Your task to perform on an android device: turn off improve location accuracy Image 0: 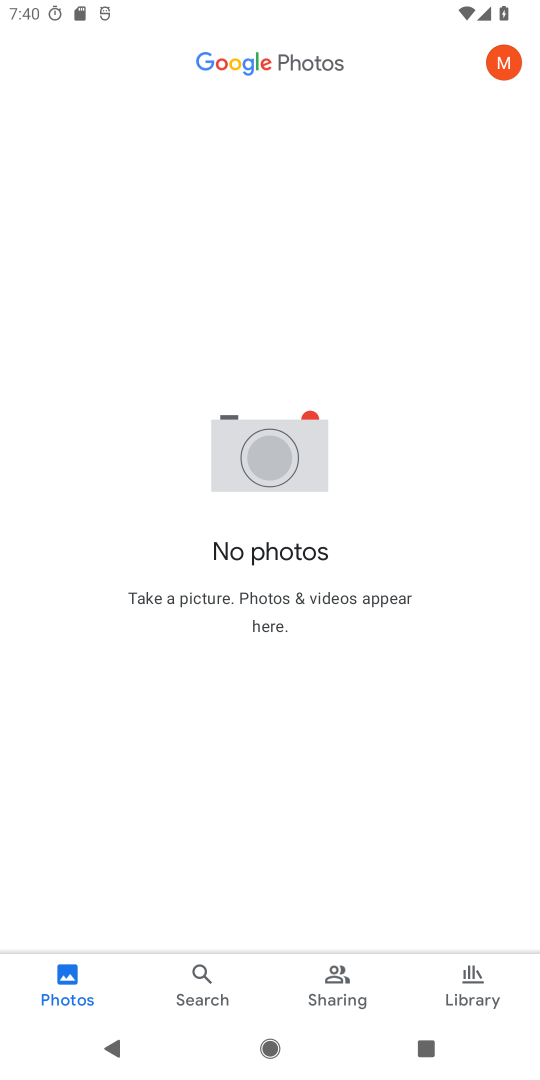
Step 0: press back button
Your task to perform on an android device: turn off improve location accuracy Image 1: 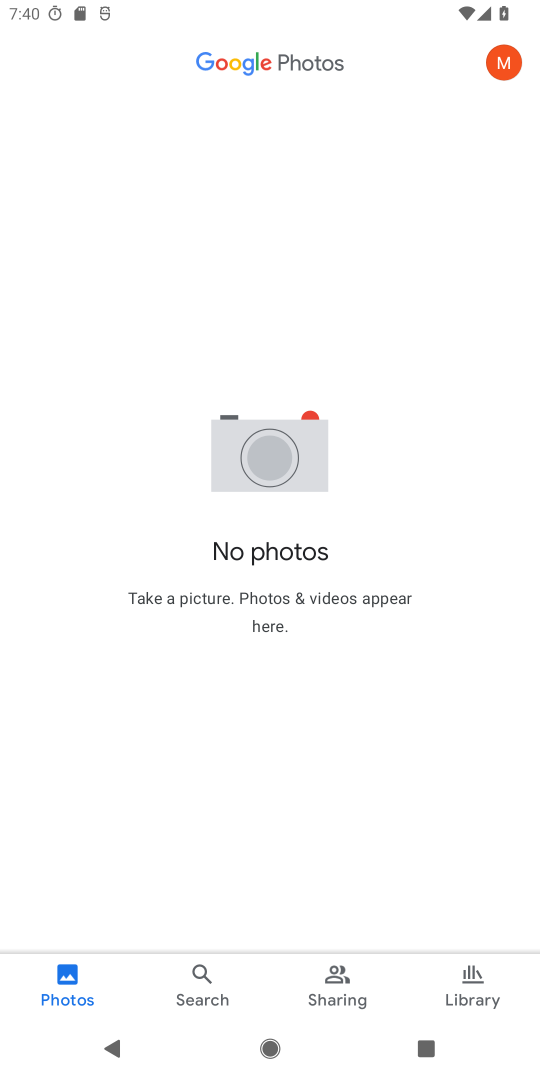
Step 1: press back button
Your task to perform on an android device: turn off improve location accuracy Image 2: 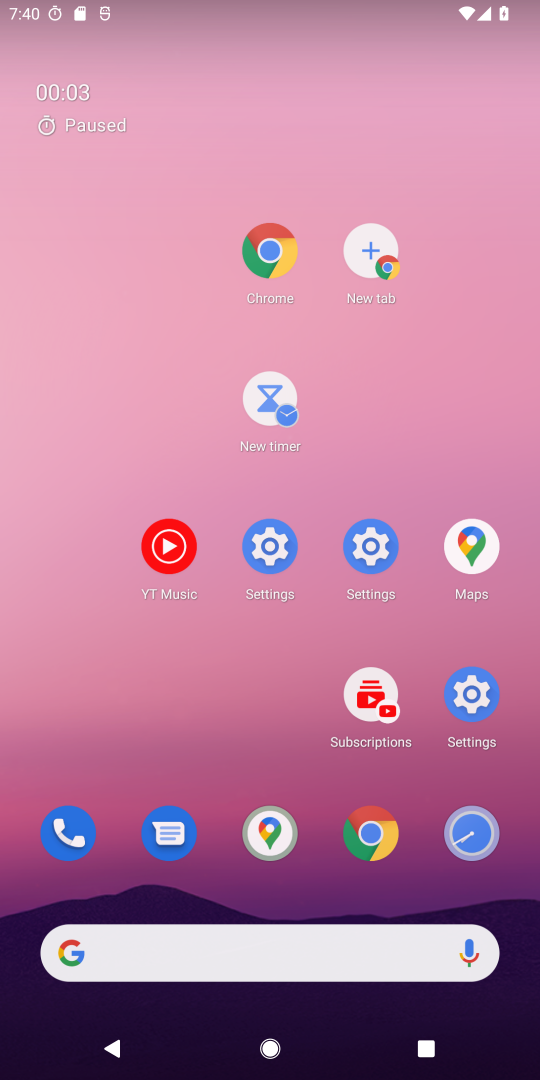
Step 2: press back button
Your task to perform on an android device: turn off improve location accuracy Image 3: 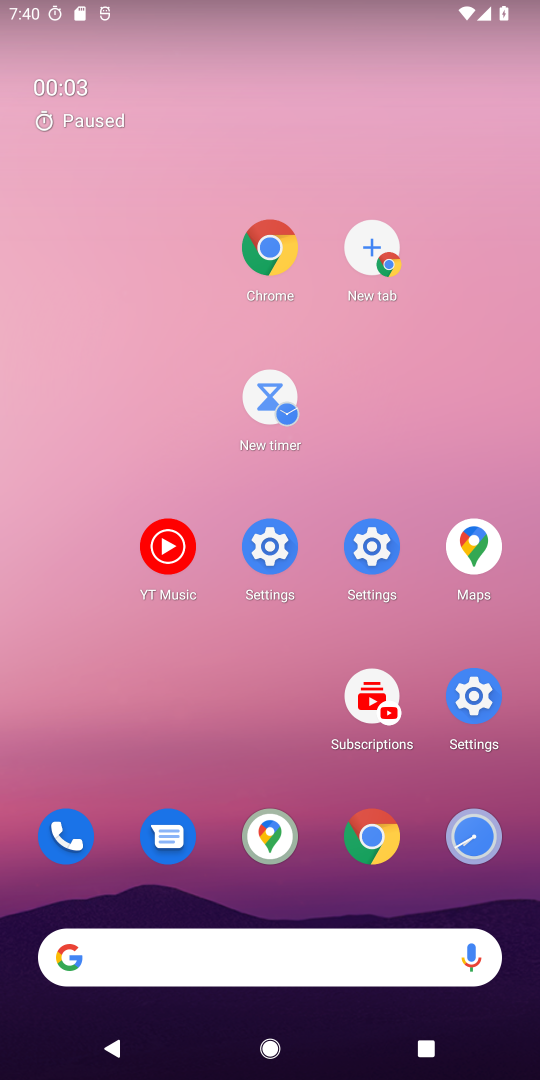
Step 3: drag from (374, 1008) to (189, 149)
Your task to perform on an android device: turn off improve location accuracy Image 4: 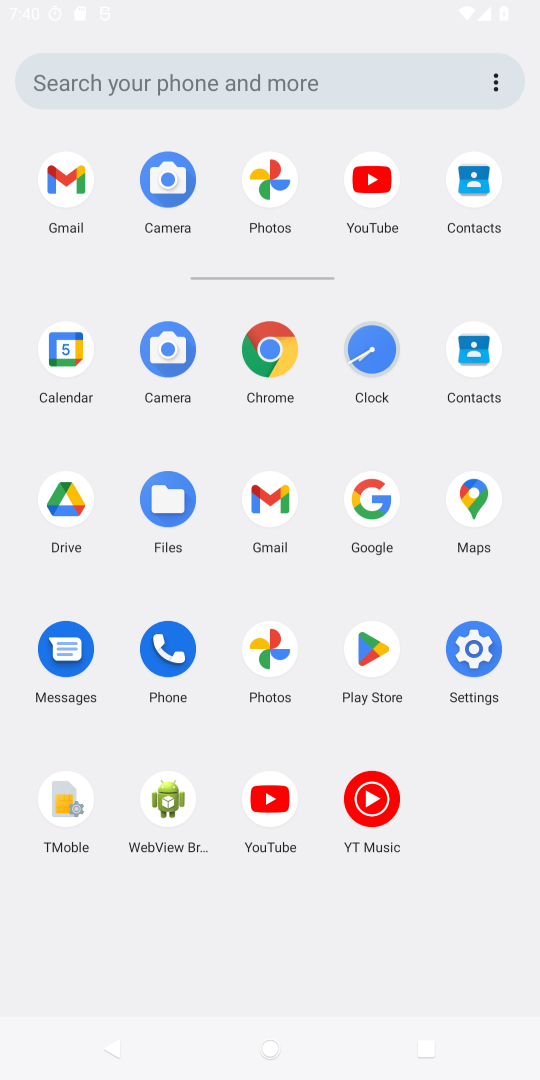
Step 4: drag from (303, 767) to (192, 284)
Your task to perform on an android device: turn off improve location accuracy Image 5: 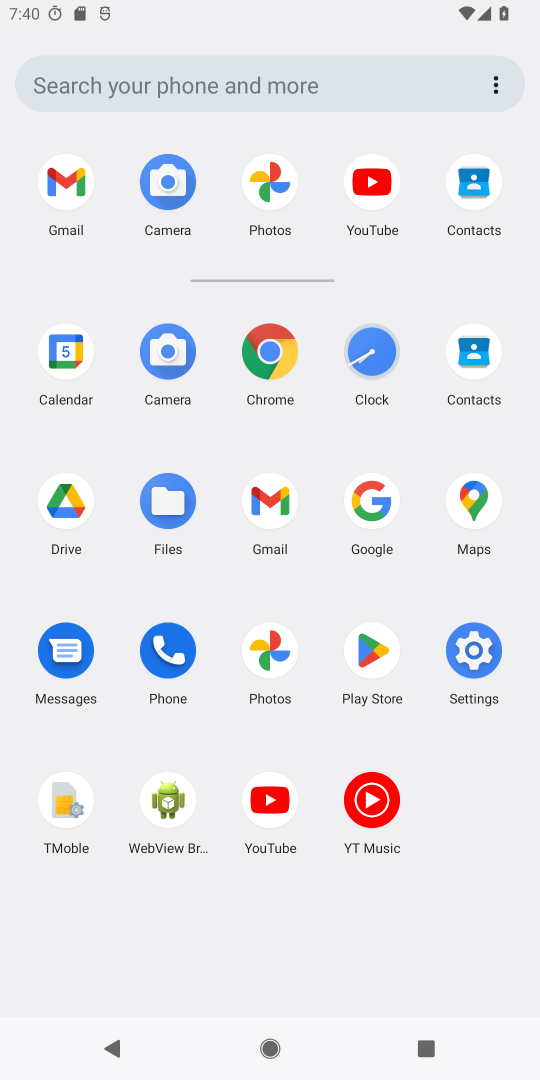
Step 5: click (466, 631)
Your task to perform on an android device: turn off improve location accuracy Image 6: 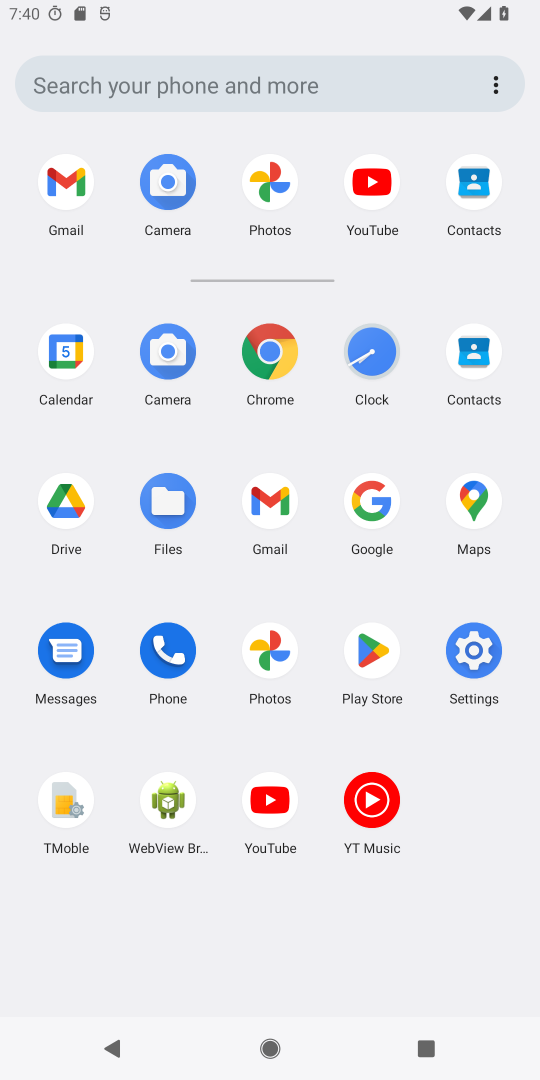
Step 6: click (466, 631)
Your task to perform on an android device: turn off improve location accuracy Image 7: 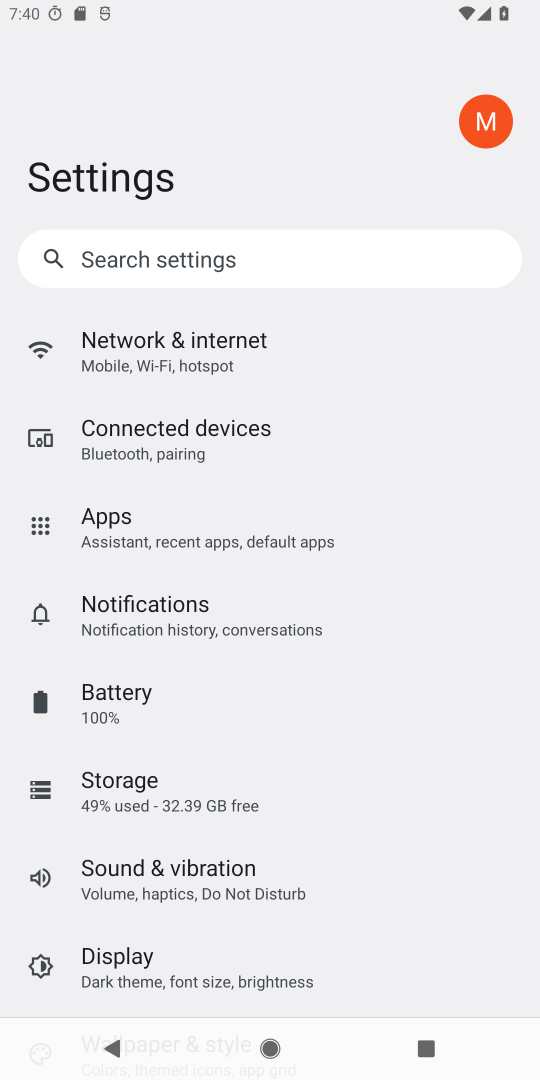
Step 7: drag from (190, 586) to (212, 284)
Your task to perform on an android device: turn off improve location accuracy Image 8: 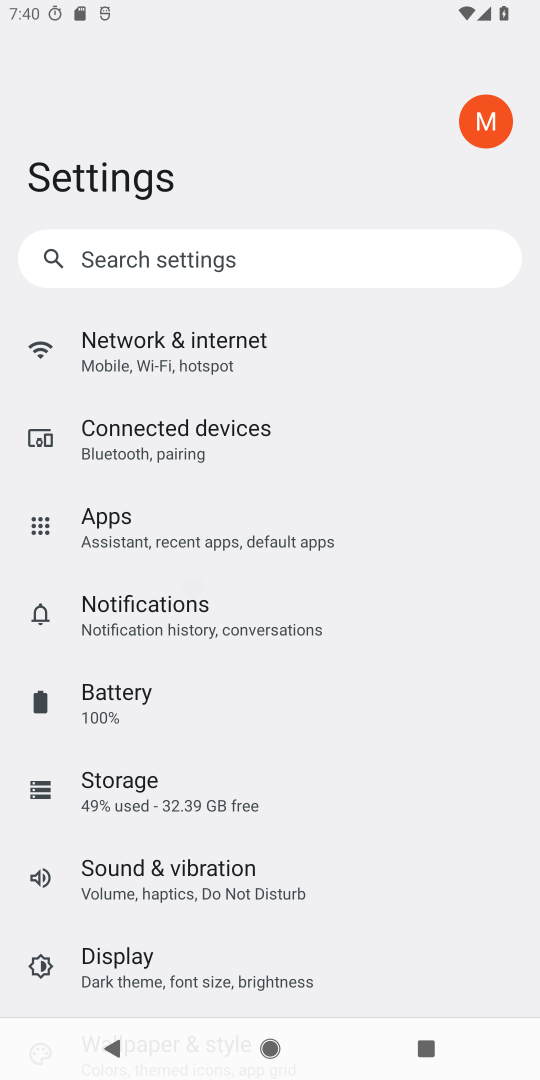
Step 8: drag from (259, 783) to (187, 400)
Your task to perform on an android device: turn off improve location accuracy Image 9: 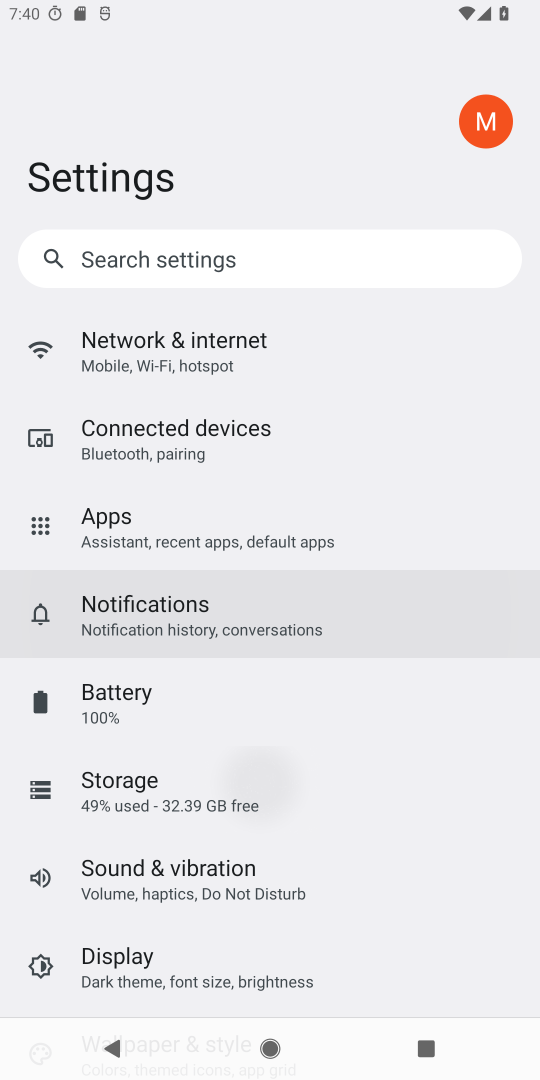
Step 9: drag from (150, 728) to (120, 402)
Your task to perform on an android device: turn off improve location accuracy Image 10: 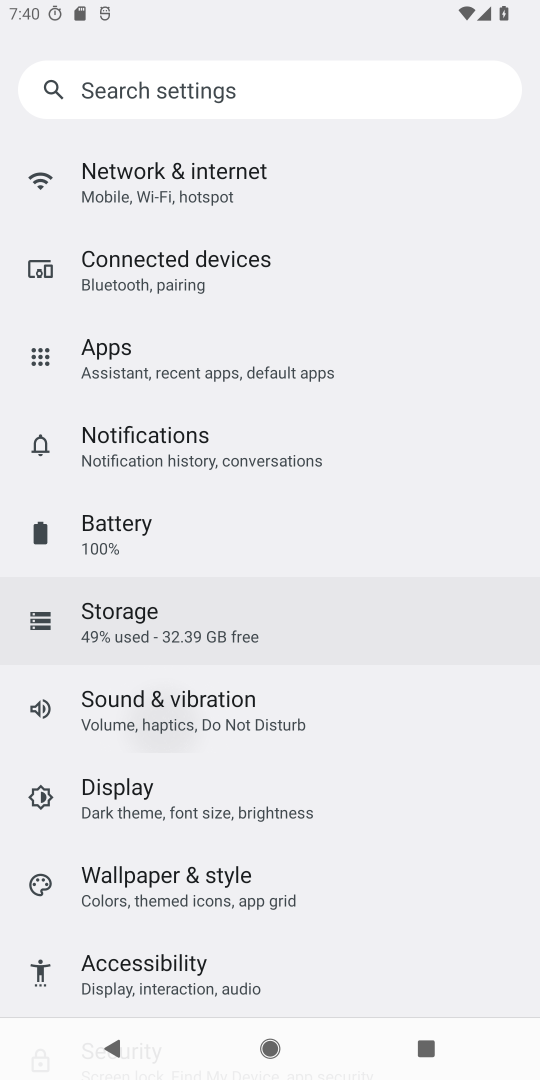
Step 10: drag from (190, 803) to (158, 524)
Your task to perform on an android device: turn off improve location accuracy Image 11: 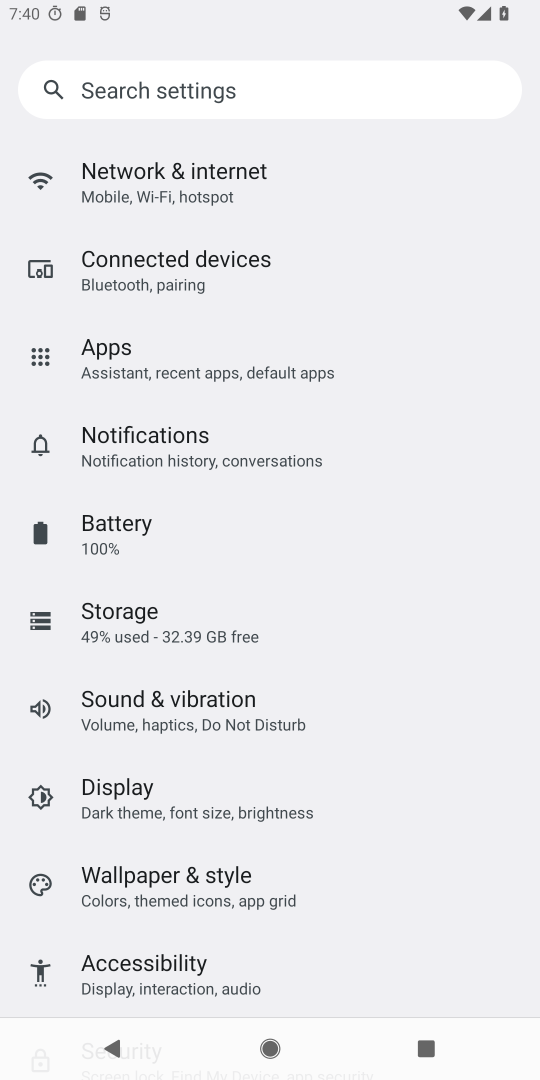
Step 11: drag from (164, 708) to (98, 421)
Your task to perform on an android device: turn off improve location accuracy Image 12: 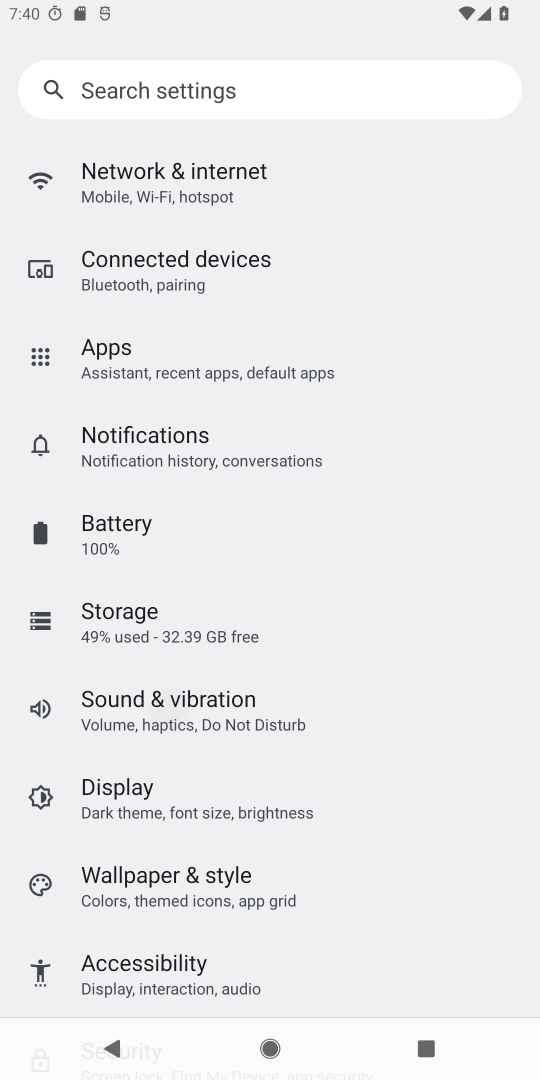
Step 12: drag from (142, 705) to (113, 511)
Your task to perform on an android device: turn off improve location accuracy Image 13: 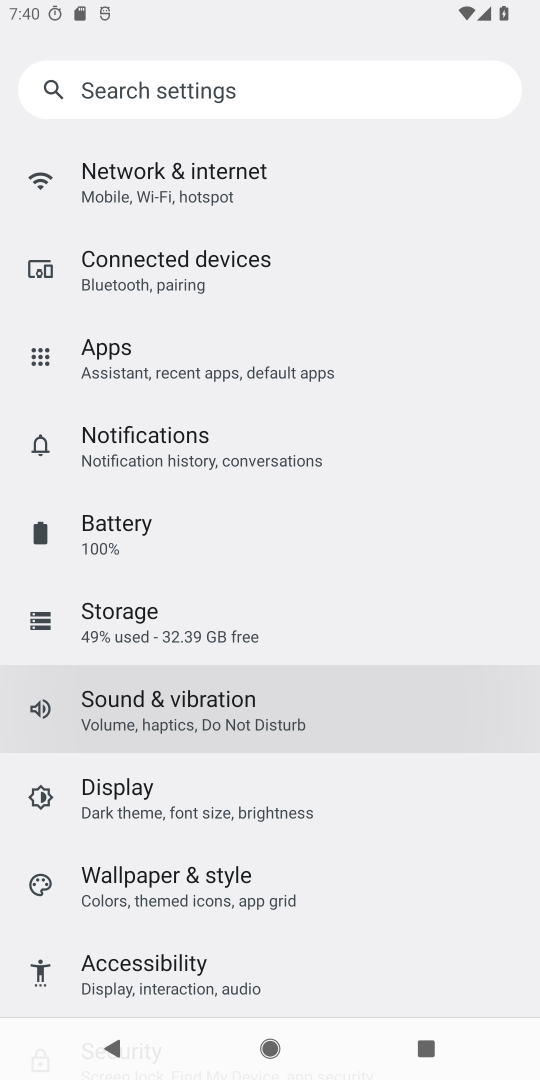
Step 13: drag from (177, 786) to (134, 491)
Your task to perform on an android device: turn off improve location accuracy Image 14: 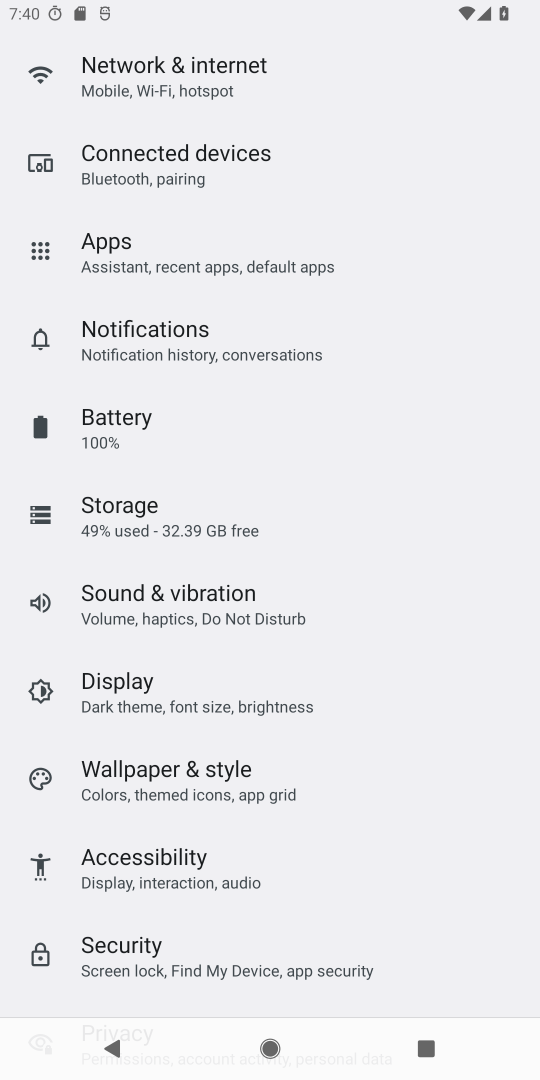
Step 14: drag from (121, 290) to (132, 641)
Your task to perform on an android device: turn off improve location accuracy Image 15: 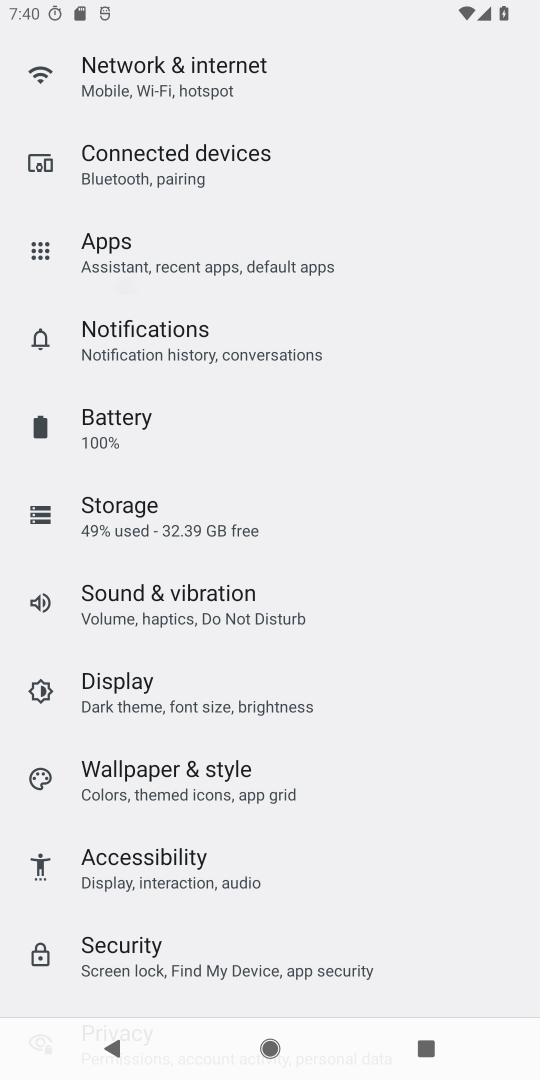
Step 15: drag from (111, 369) to (149, 642)
Your task to perform on an android device: turn off improve location accuracy Image 16: 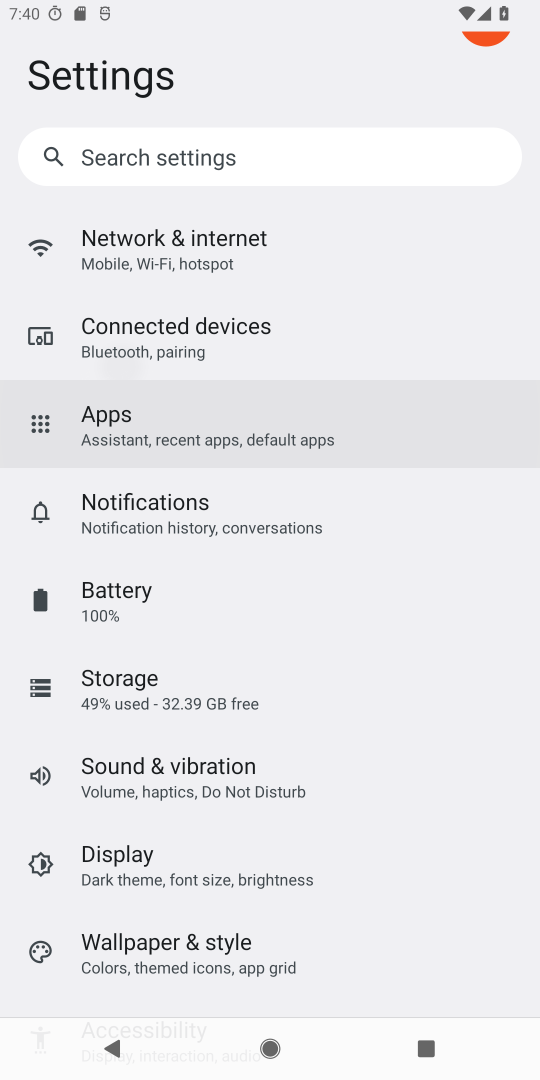
Step 16: drag from (152, 411) to (206, 732)
Your task to perform on an android device: turn off improve location accuracy Image 17: 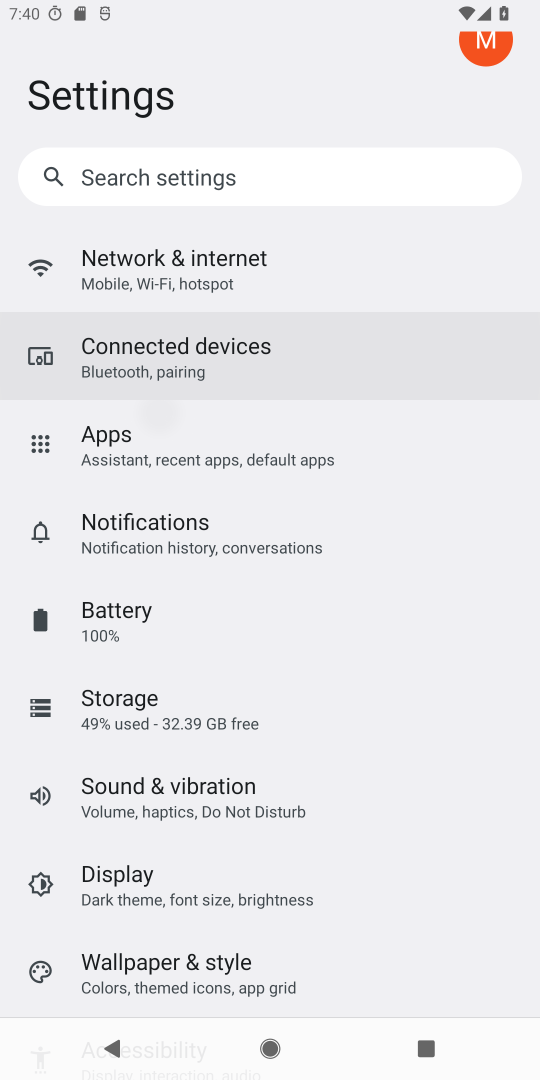
Step 17: drag from (221, 415) to (251, 633)
Your task to perform on an android device: turn off improve location accuracy Image 18: 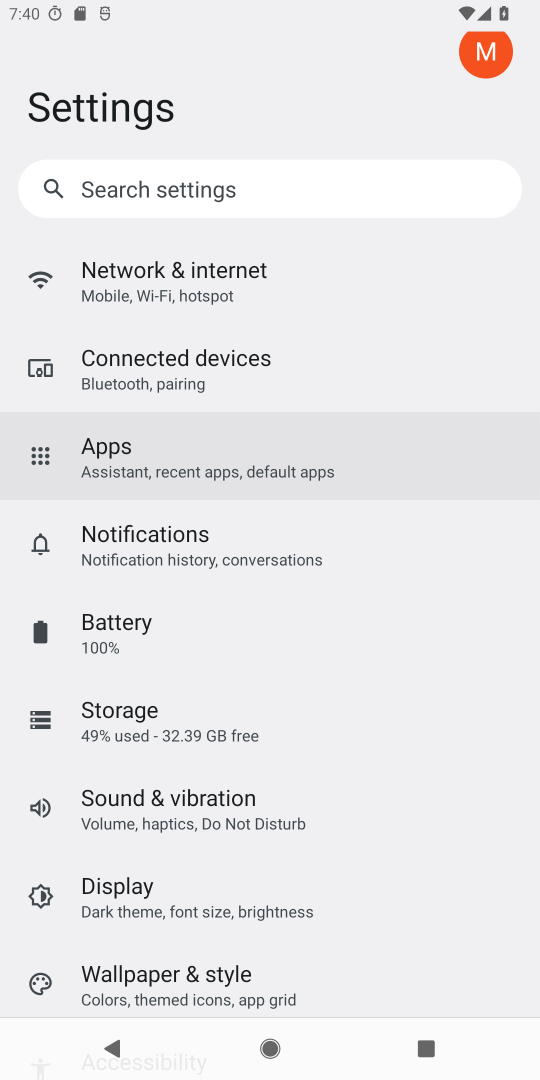
Step 18: drag from (194, 326) to (223, 588)
Your task to perform on an android device: turn off improve location accuracy Image 19: 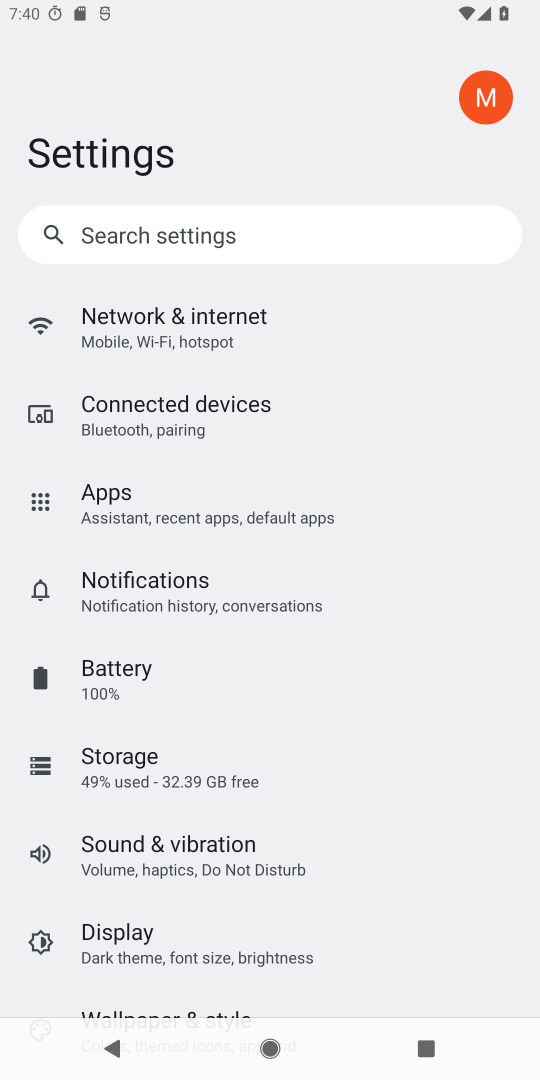
Step 19: drag from (248, 746) to (257, 589)
Your task to perform on an android device: turn off improve location accuracy Image 20: 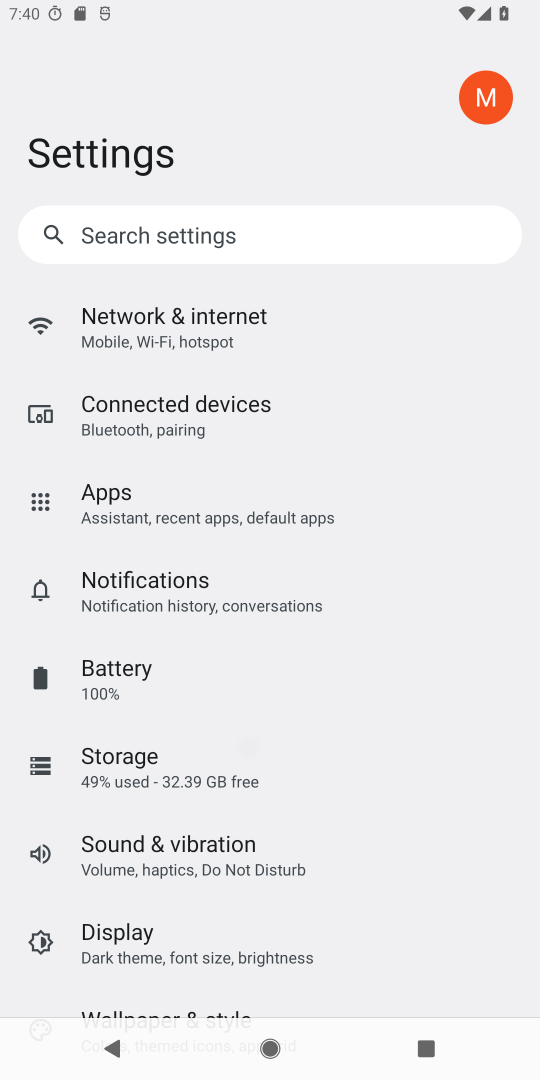
Step 20: drag from (250, 745) to (211, 460)
Your task to perform on an android device: turn off improve location accuracy Image 21: 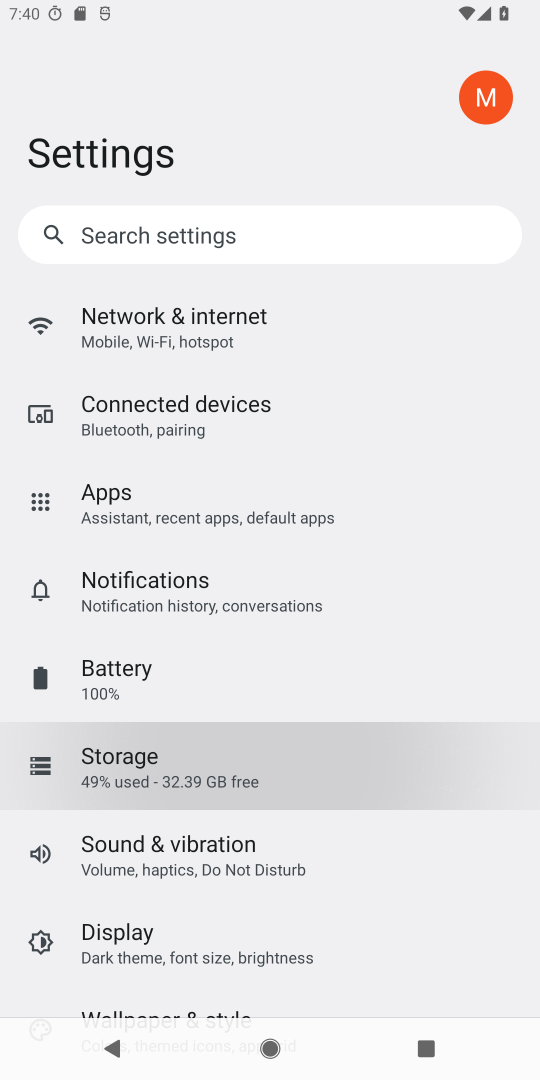
Step 21: drag from (209, 575) to (233, 494)
Your task to perform on an android device: turn off improve location accuracy Image 22: 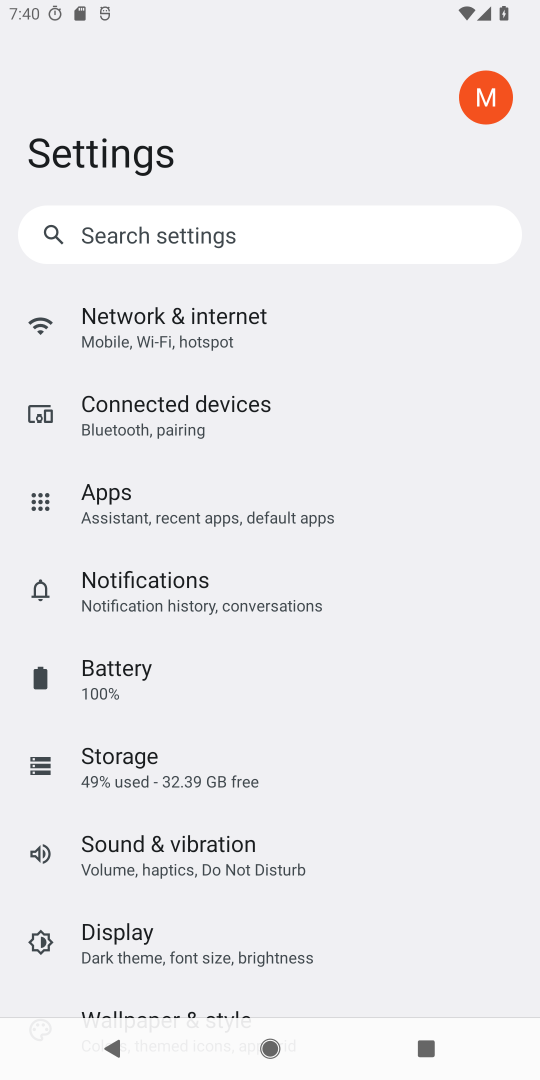
Step 22: drag from (105, 452) to (93, 379)
Your task to perform on an android device: turn off improve location accuracy Image 23: 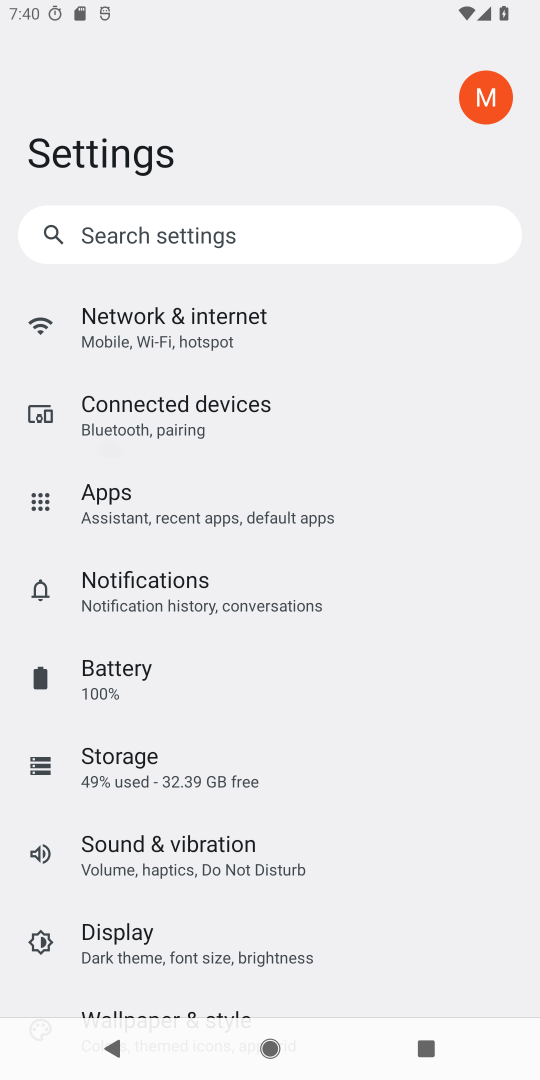
Step 23: drag from (194, 700) to (210, 465)
Your task to perform on an android device: turn off improve location accuracy Image 24: 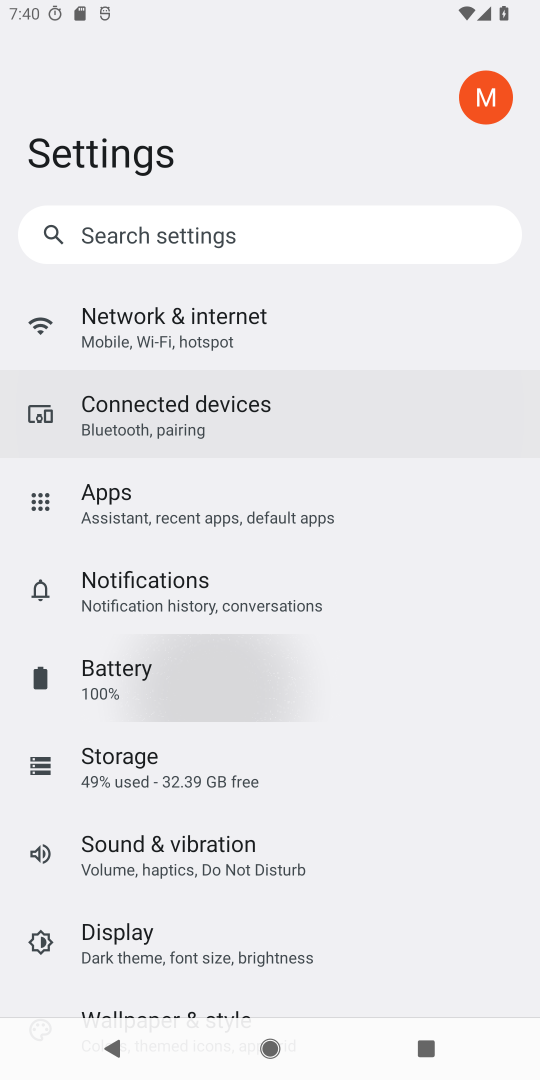
Step 24: drag from (271, 731) to (237, 509)
Your task to perform on an android device: turn off improve location accuracy Image 25: 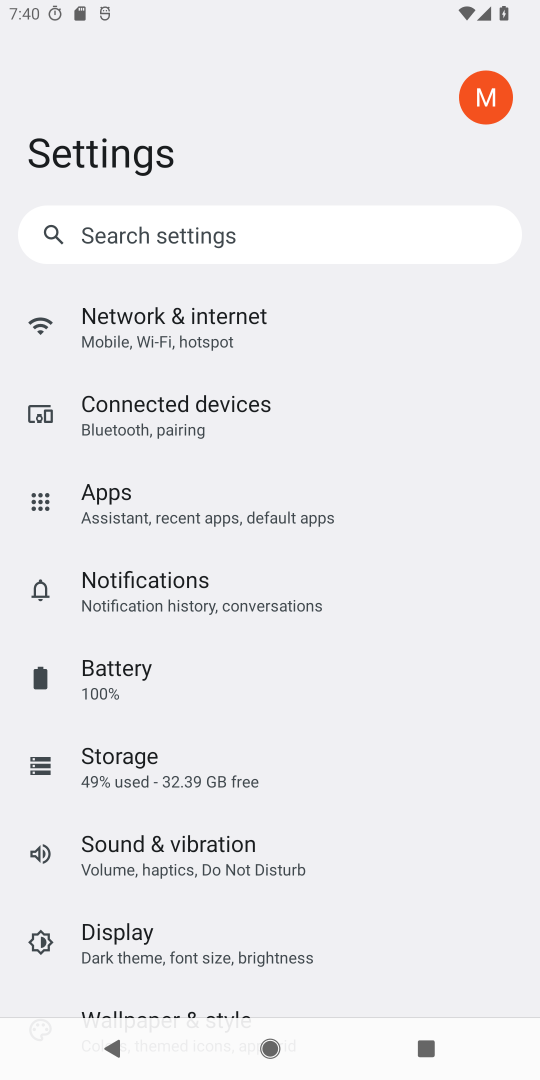
Step 25: drag from (180, 850) to (166, 351)
Your task to perform on an android device: turn off improve location accuracy Image 26: 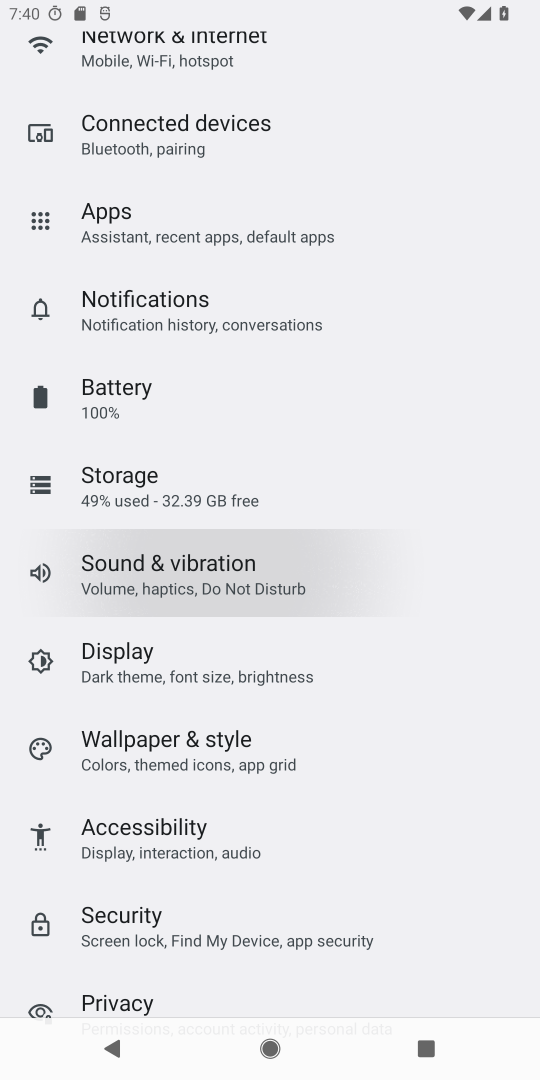
Step 26: drag from (200, 647) to (132, 247)
Your task to perform on an android device: turn off improve location accuracy Image 27: 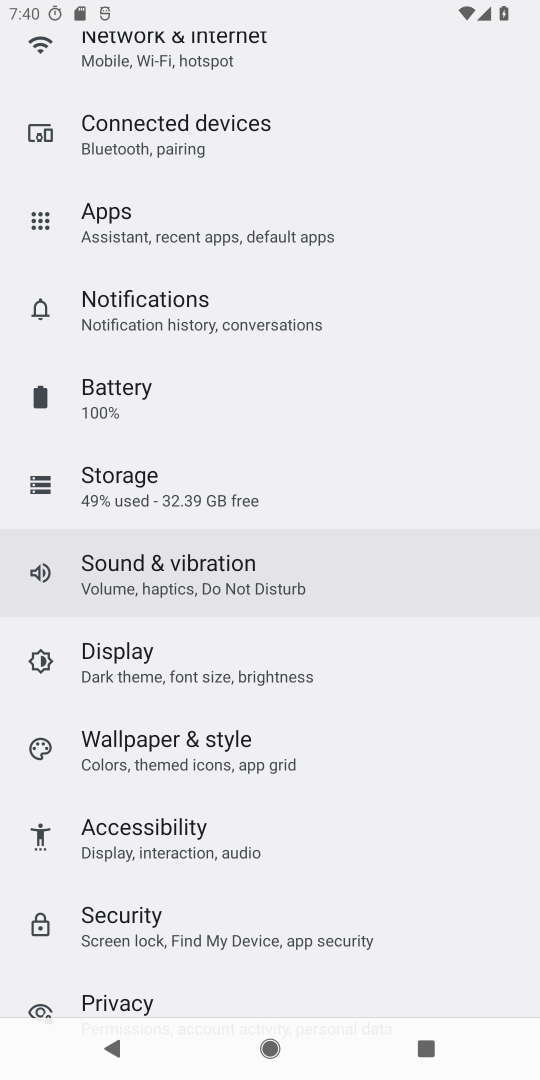
Step 27: drag from (151, 623) to (180, 160)
Your task to perform on an android device: turn off improve location accuracy Image 28: 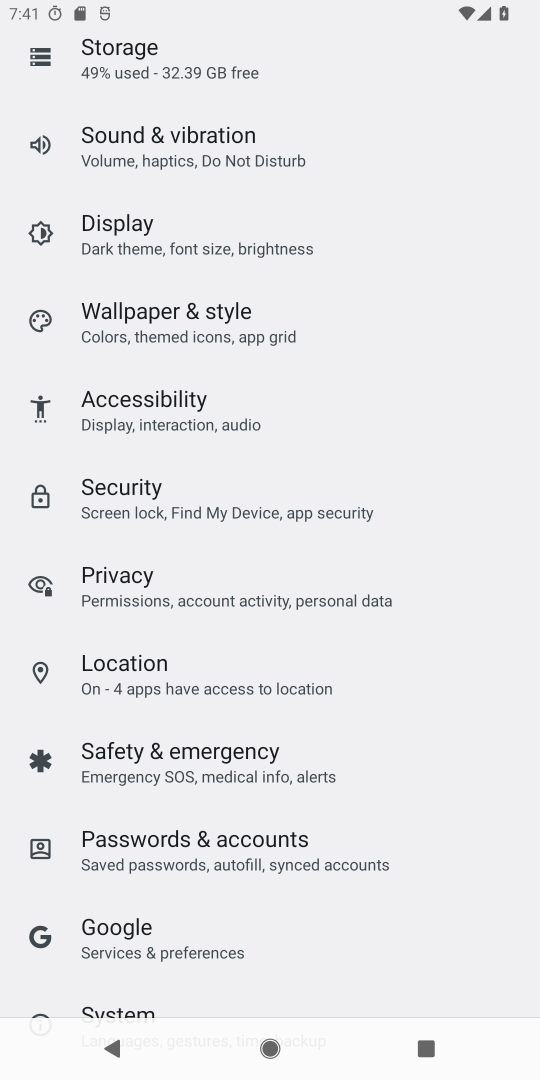
Step 28: click (113, 683)
Your task to perform on an android device: turn off improve location accuracy Image 29: 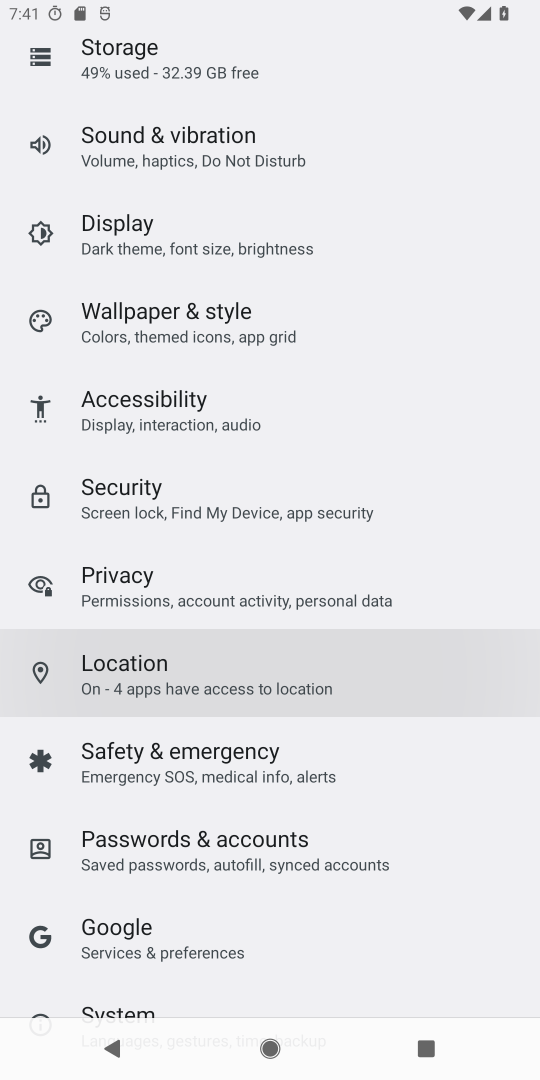
Step 29: click (113, 685)
Your task to perform on an android device: turn off improve location accuracy Image 30: 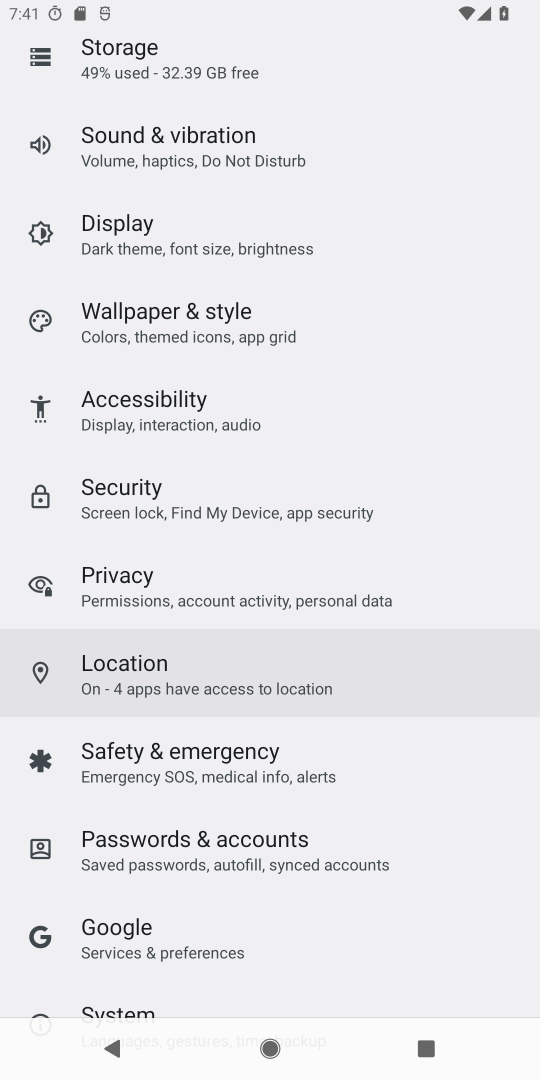
Step 30: drag from (113, 685) to (191, 704)
Your task to perform on an android device: turn off improve location accuracy Image 31: 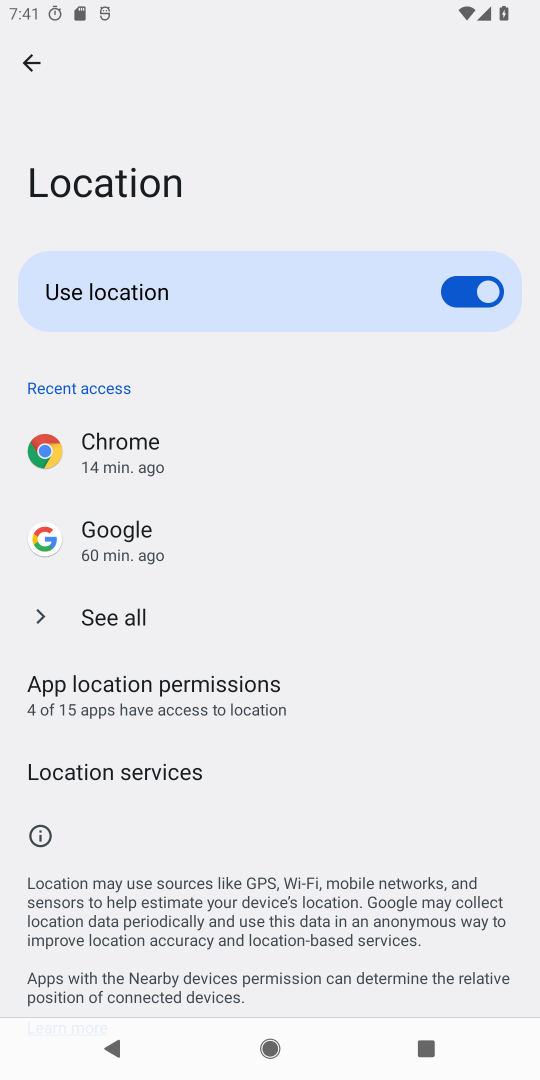
Step 31: click (105, 767)
Your task to perform on an android device: turn off improve location accuracy Image 32: 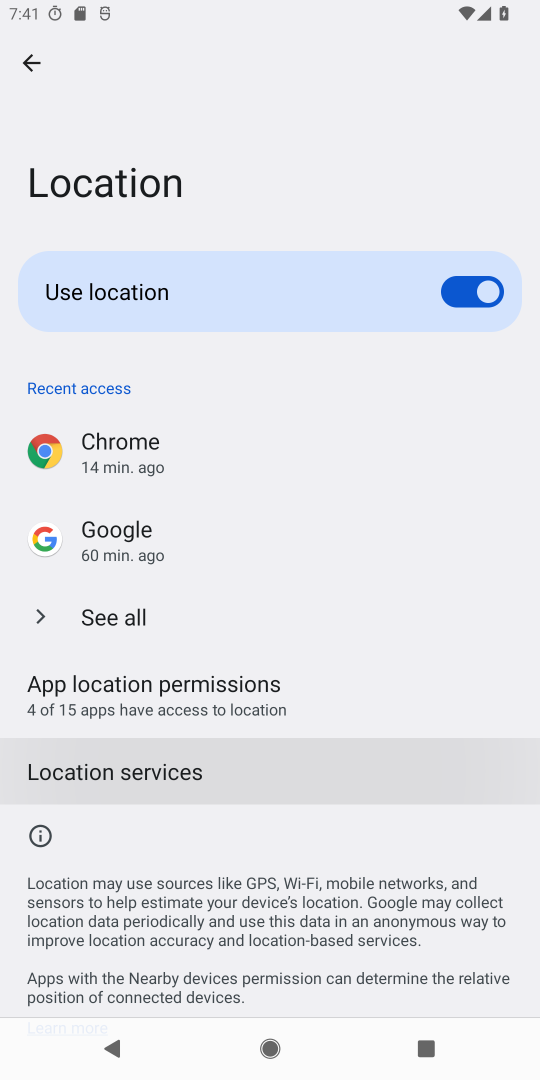
Step 32: click (105, 767)
Your task to perform on an android device: turn off improve location accuracy Image 33: 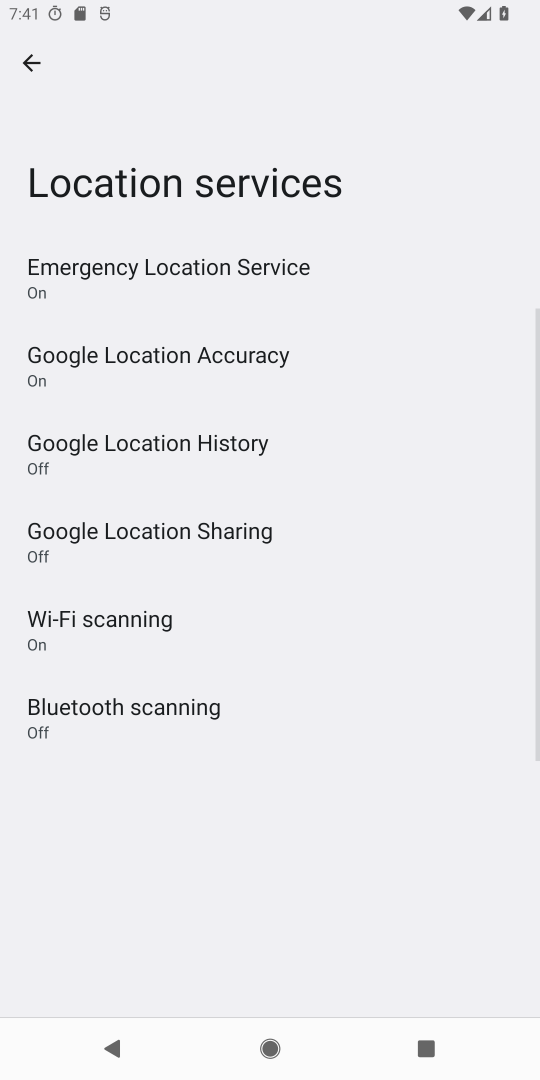
Step 33: click (213, 358)
Your task to perform on an android device: turn off improve location accuracy Image 34: 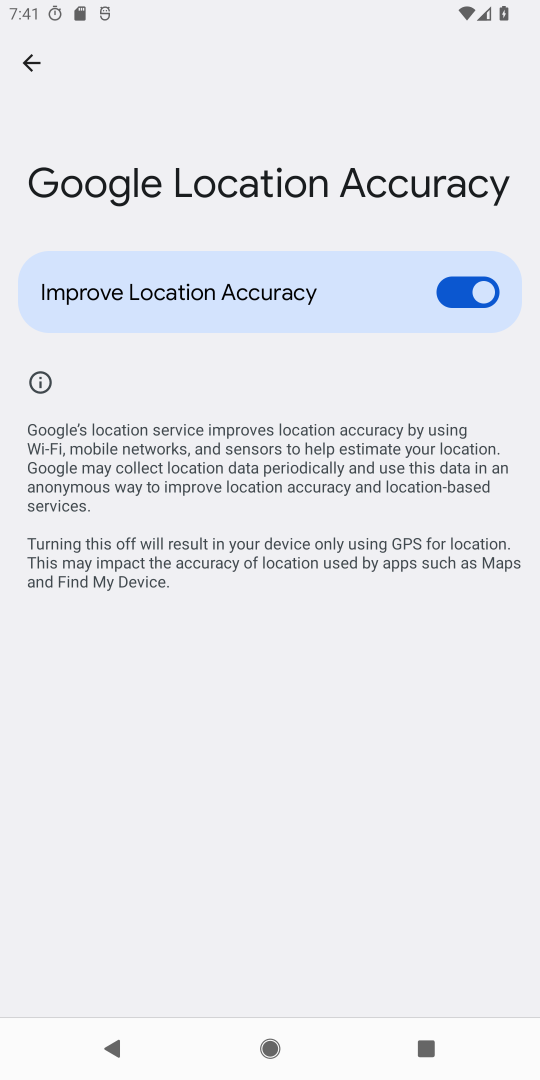
Step 34: click (473, 288)
Your task to perform on an android device: turn off improve location accuracy Image 35: 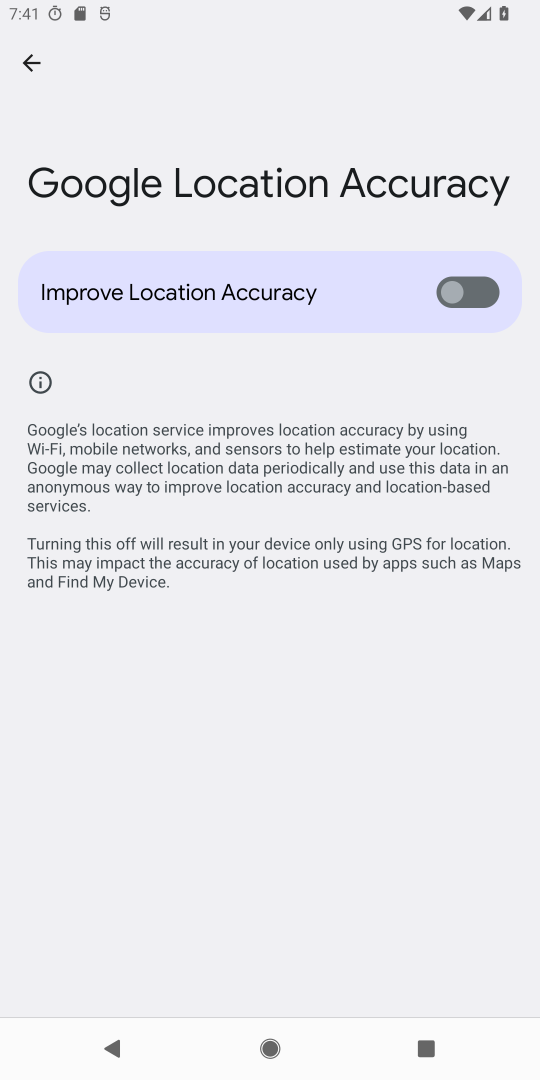
Step 35: task complete